Your task to perform on an android device: check battery use Image 0: 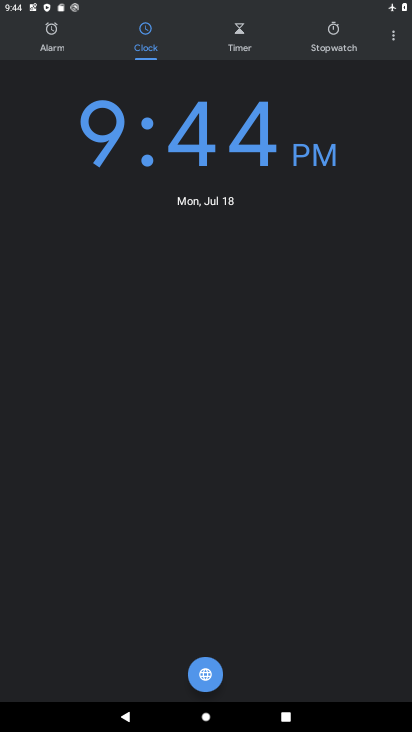
Step 0: press home button
Your task to perform on an android device: check battery use Image 1: 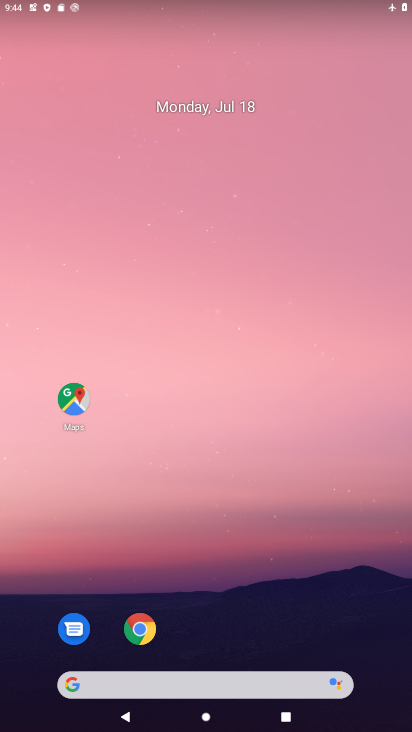
Step 1: drag from (340, 638) to (330, 29)
Your task to perform on an android device: check battery use Image 2: 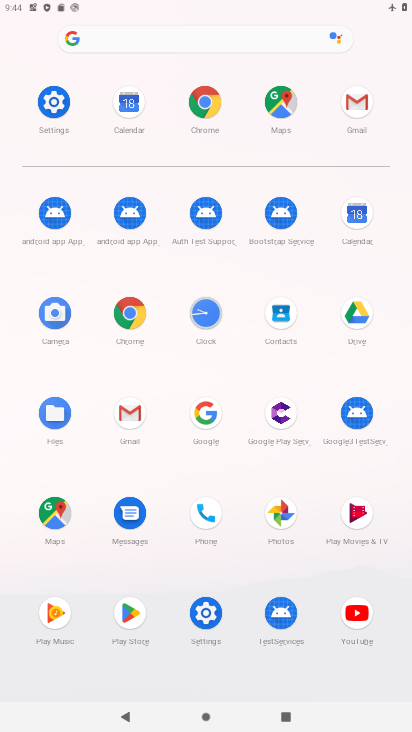
Step 2: click (64, 106)
Your task to perform on an android device: check battery use Image 3: 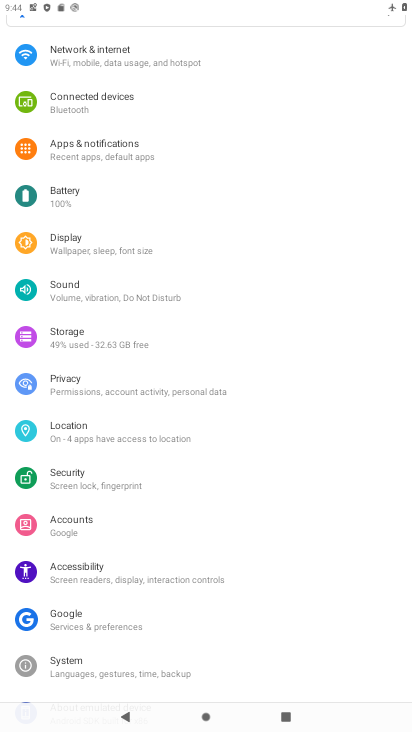
Step 3: click (58, 198)
Your task to perform on an android device: check battery use Image 4: 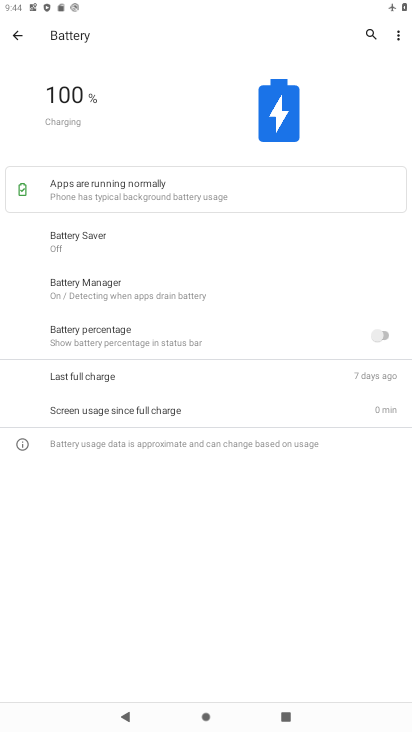
Step 4: click (396, 34)
Your task to perform on an android device: check battery use Image 5: 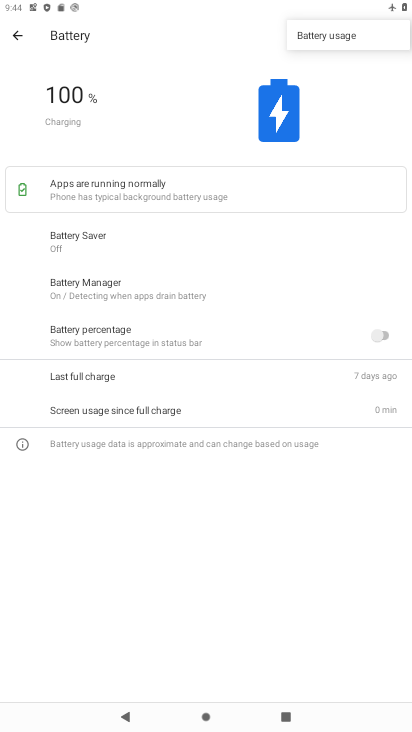
Step 5: click (360, 38)
Your task to perform on an android device: check battery use Image 6: 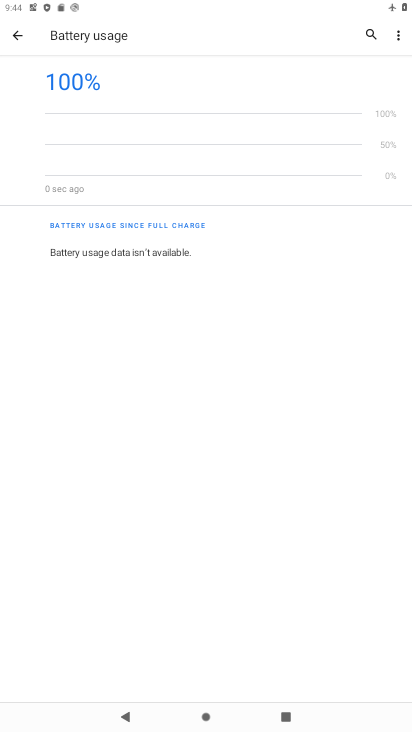
Step 6: task complete